Your task to perform on an android device: change timer sound Image 0: 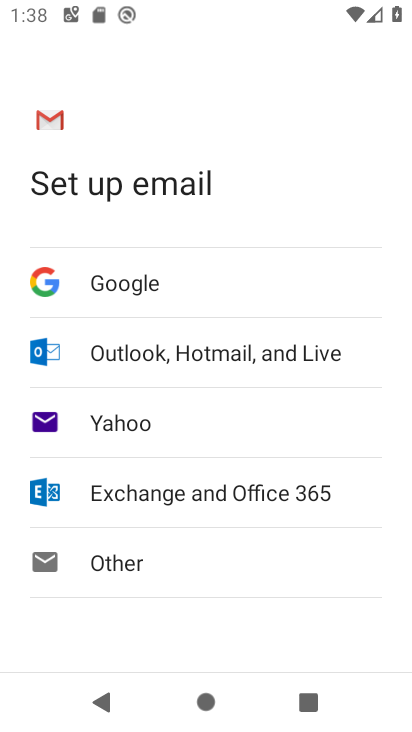
Step 0: press home button
Your task to perform on an android device: change timer sound Image 1: 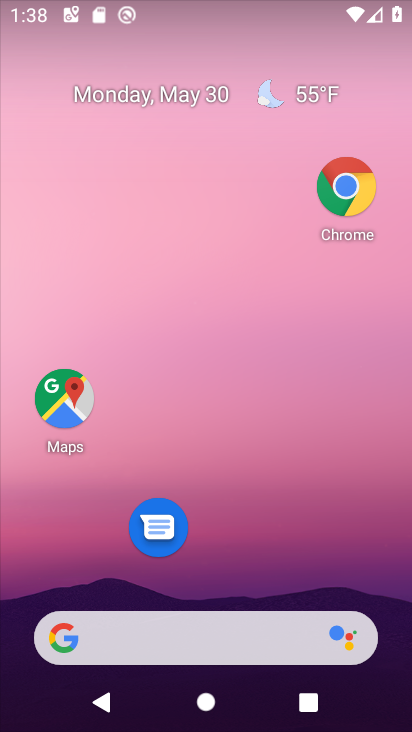
Step 1: drag from (210, 600) to (215, 124)
Your task to perform on an android device: change timer sound Image 2: 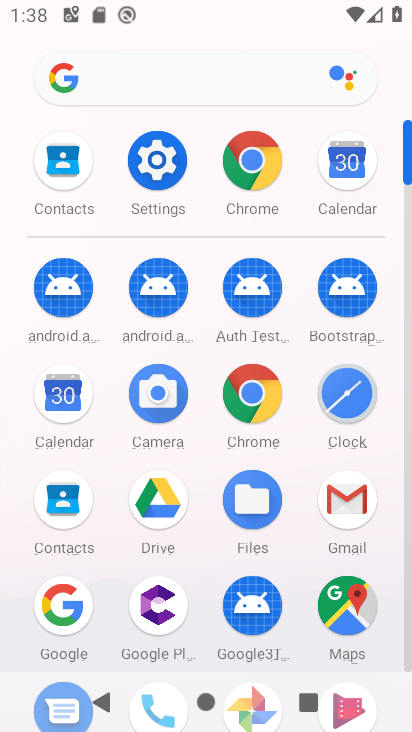
Step 2: click (354, 385)
Your task to perform on an android device: change timer sound Image 3: 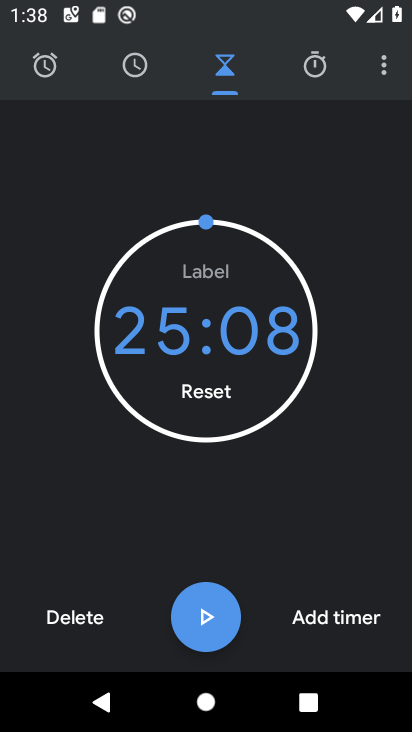
Step 3: click (98, 631)
Your task to perform on an android device: change timer sound Image 4: 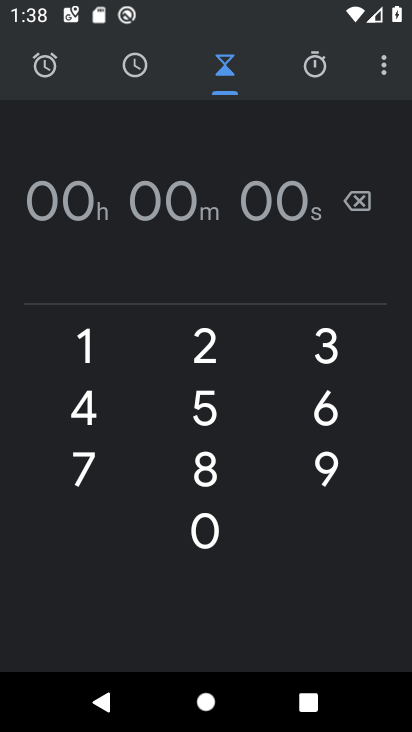
Step 4: click (210, 330)
Your task to perform on an android device: change timer sound Image 5: 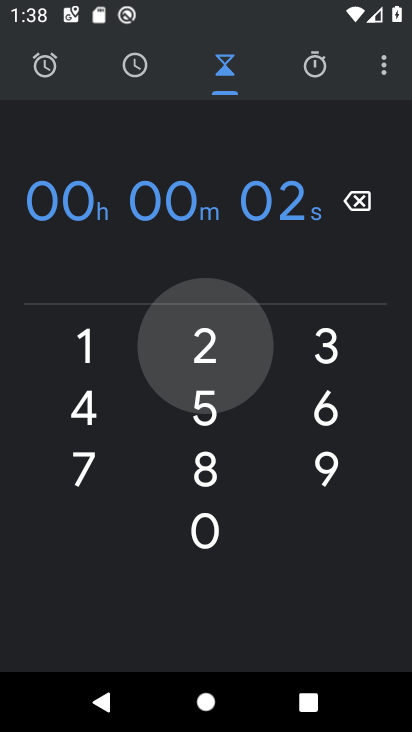
Step 5: click (337, 333)
Your task to perform on an android device: change timer sound Image 6: 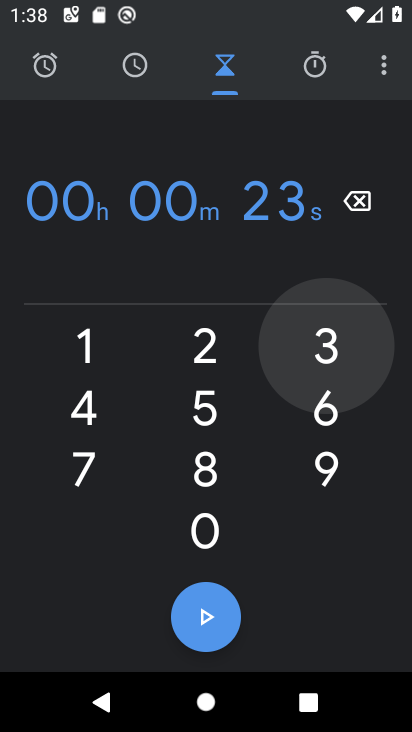
Step 6: click (334, 416)
Your task to perform on an android device: change timer sound Image 7: 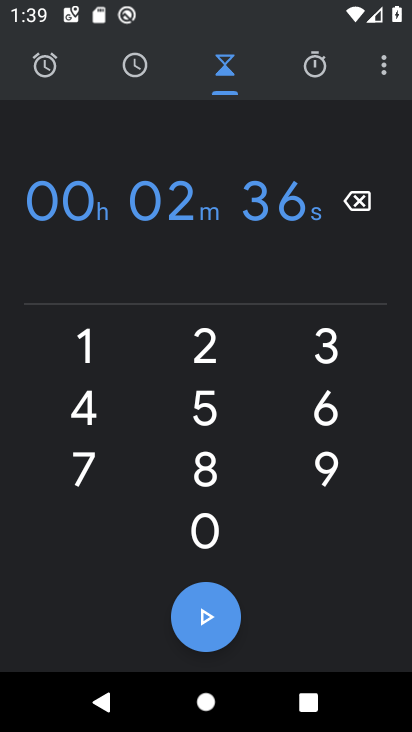
Step 7: click (201, 612)
Your task to perform on an android device: change timer sound Image 8: 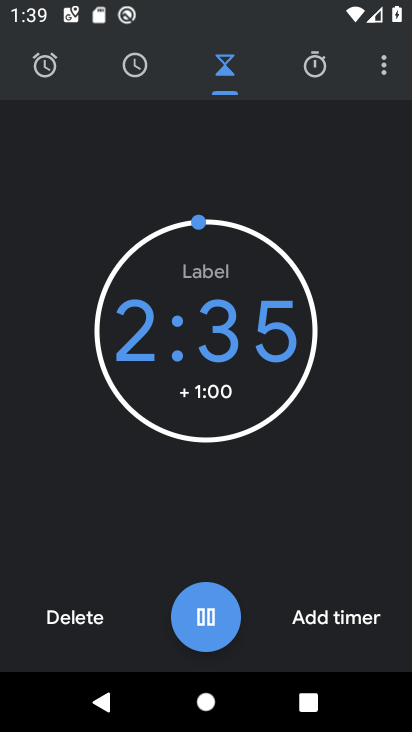
Step 8: task complete